Your task to perform on an android device: all mails in gmail Image 0: 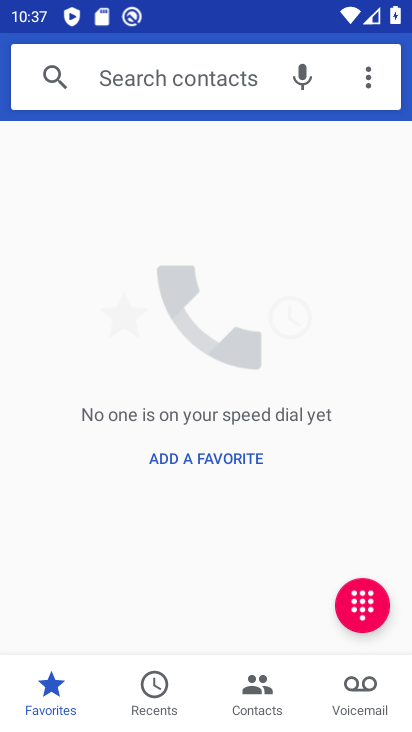
Step 0: drag from (164, 643) to (181, 486)
Your task to perform on an android device: all mails in gmail Image 1: 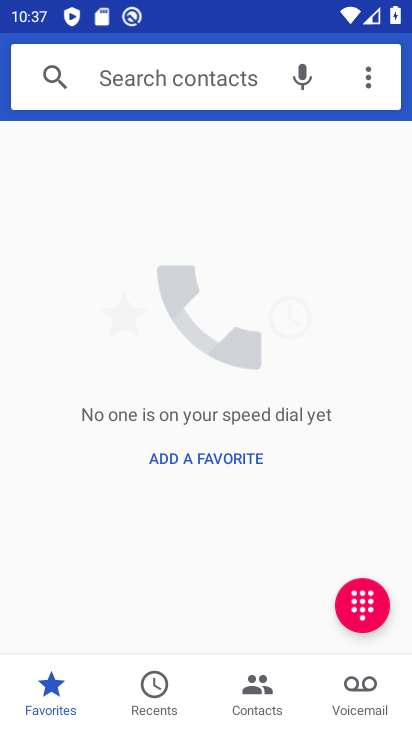
Step 1: press home button
Your task to perform on an android device: all mails in gmail Image 2: 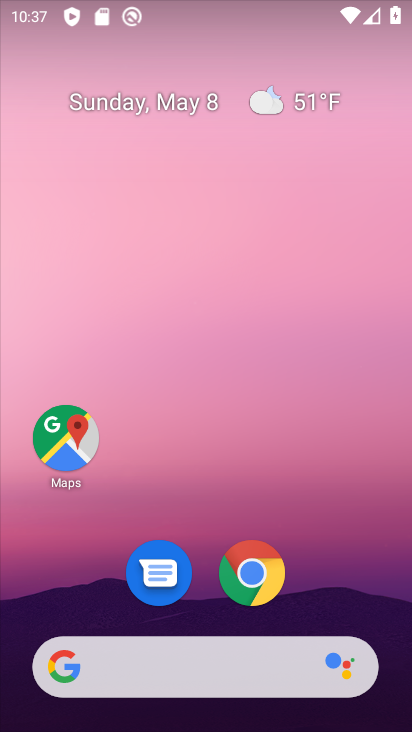
Step 2: drag from (210, 633) to (220, 337)
Your task to perform on an android device: all mails in gmail Image 3: 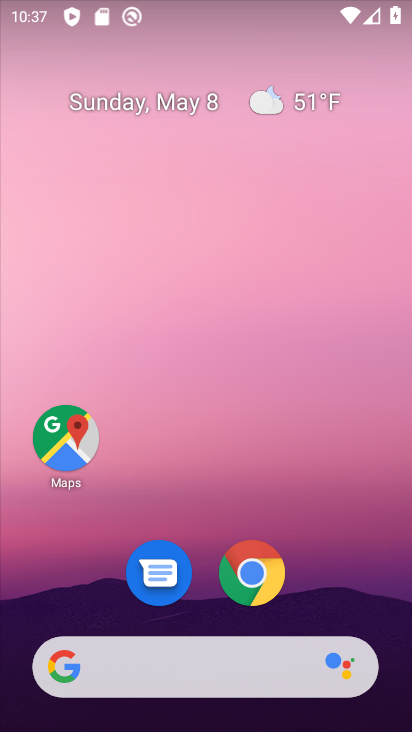
Step 3: drag from (216, 591) to (216, 206)
Your task to perform on an android device: all mails in gmail Image 4: 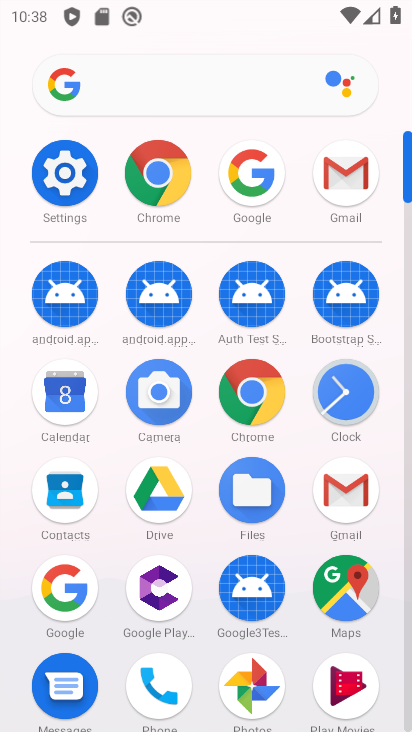
Step 4: click (339, 179)
Your task to perform on an android device: all mails in gmail Image 5: 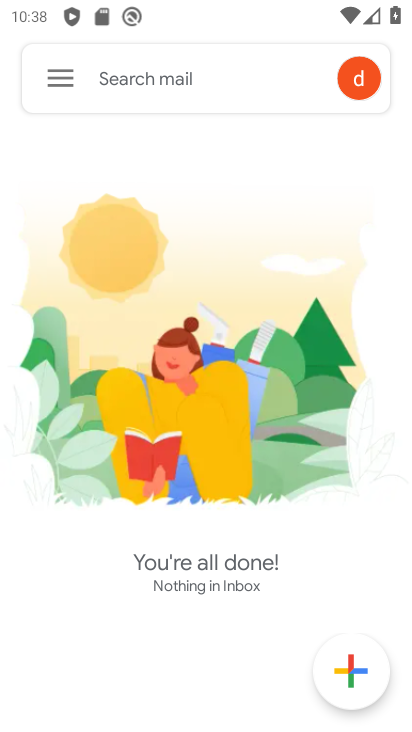
Step 5: click (53, 86)
Your task to perform on an android device: all mails in gmail Image 6: 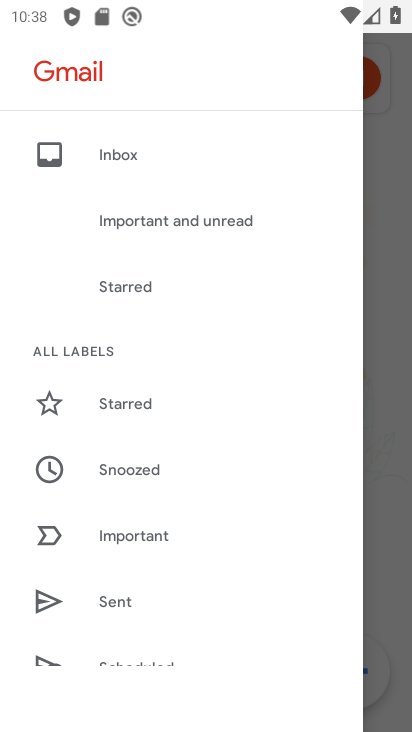
Step 6: drag from (134, 656) to (145, 293)
Your task to perform on an android device: all mails in gmail Image 7: 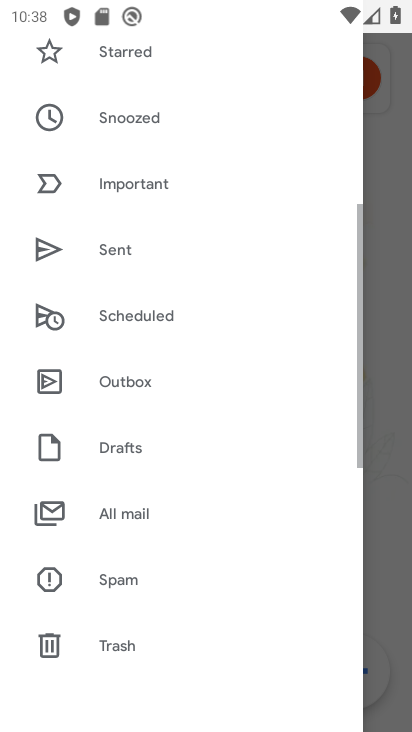
Step 7: click (137, 515)
Your task to perform on an android device: all mails in gmail Image 8: 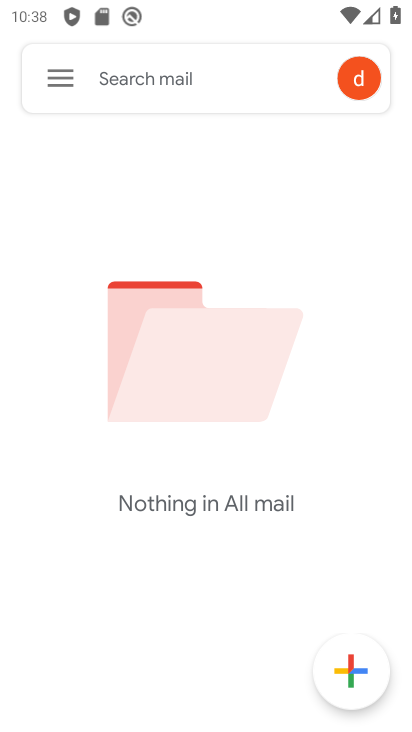
Step 8: task complete